Your task to perform on an android device: Show me popular games on the Play Store Image 0: 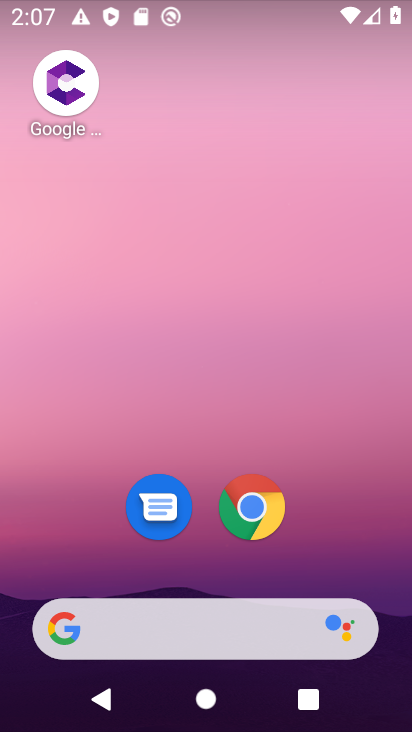
Step 0: drag from (318, 545) to (336, 6)
Your task to perform on an android device: Show me popular games on the Play Store Image 1: 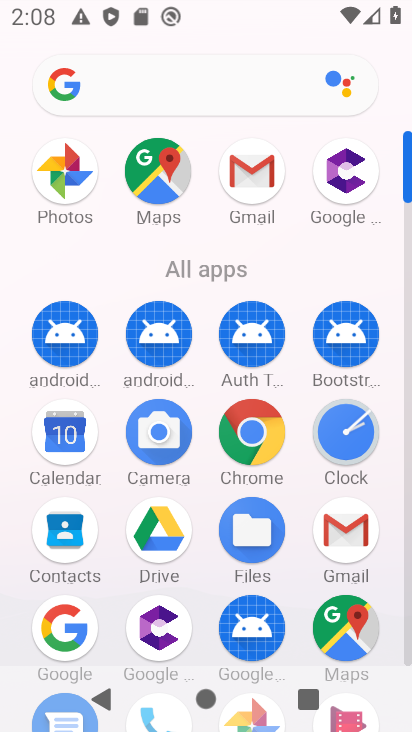
Step 1: drag from (202, 624) to (202, 273)
Your task to perform on an android device: Show me popular games on the Play Store Image 2: 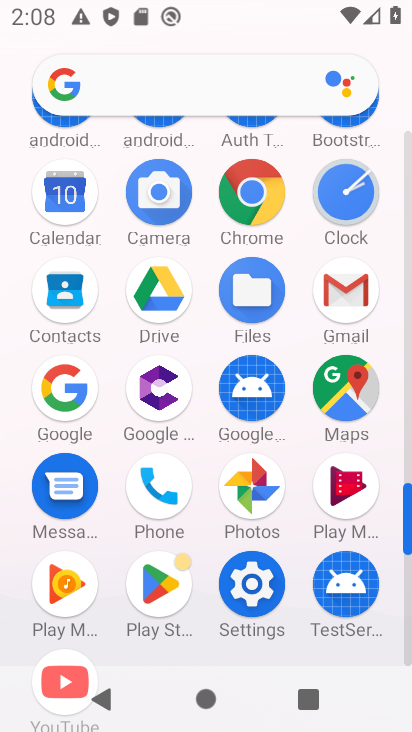
Step 2: click (161, 594)
Your task to perform on an android device: Show me popular games on the Play Store Image 3: 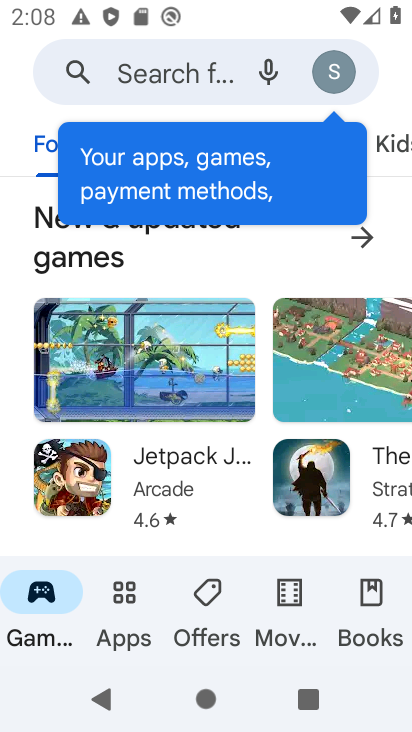
Step 3: task complete